Your task to perform on an android device: View the shopping cart on bestbuy. Image 0: 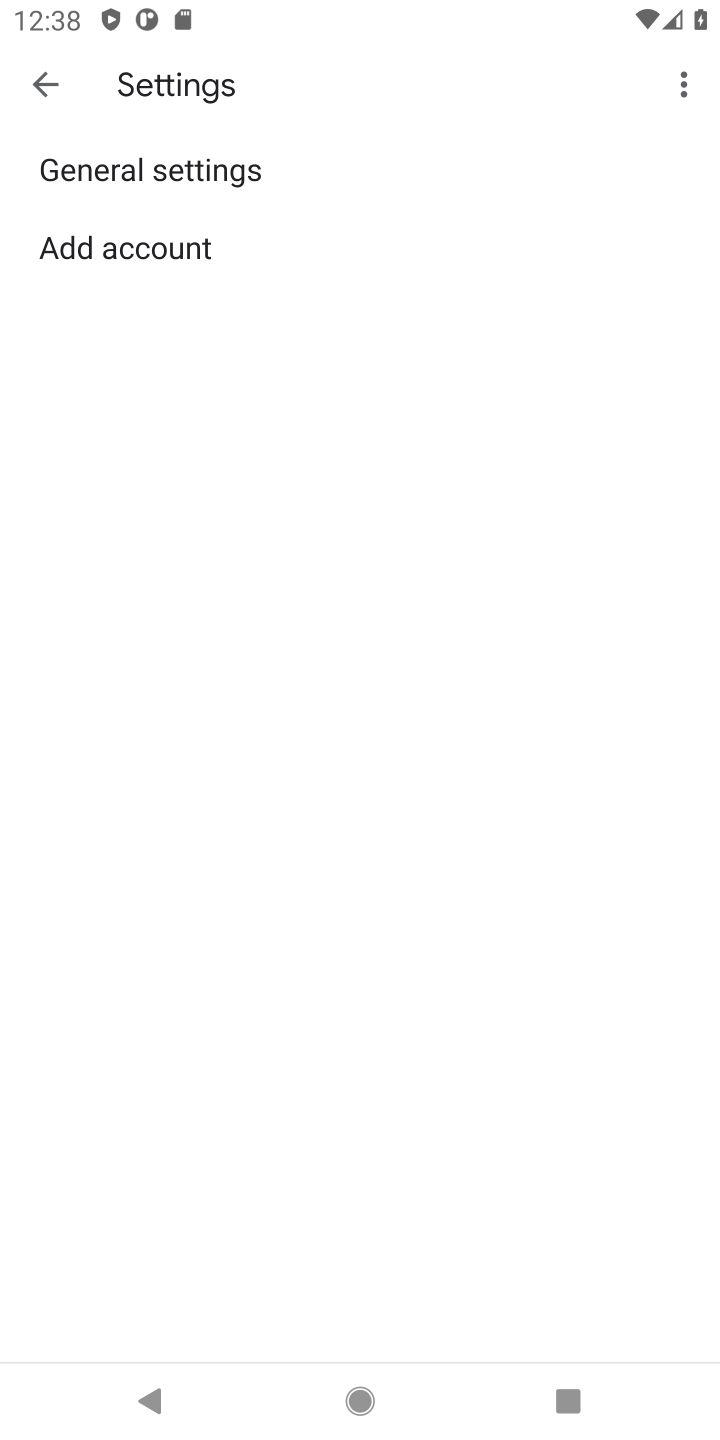
Step 0: press home button
Your task to perform on an android device: View the shopping cart on bestbuy. Image 1: 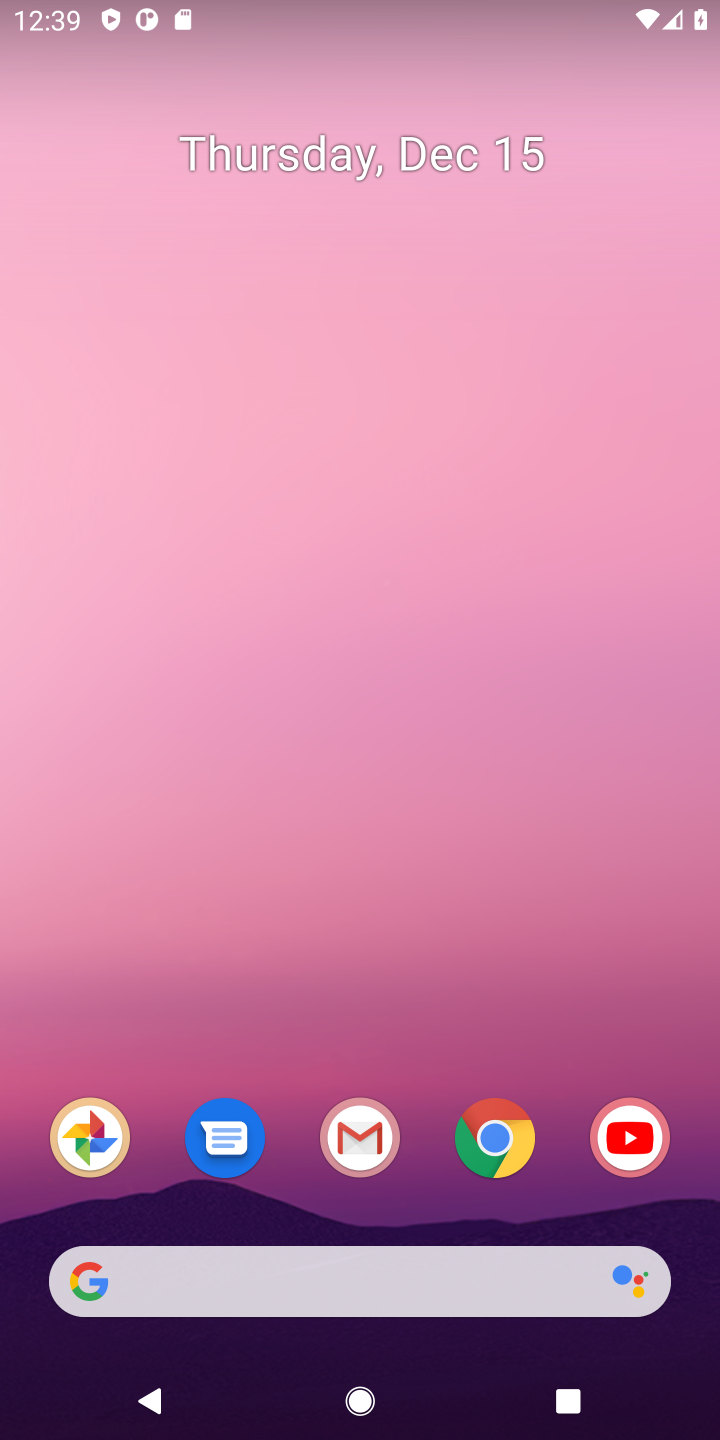
Step 1: click (490, 1166)
Your task to perform on an android device: View the shopping cart on bestbuy. Image 2: 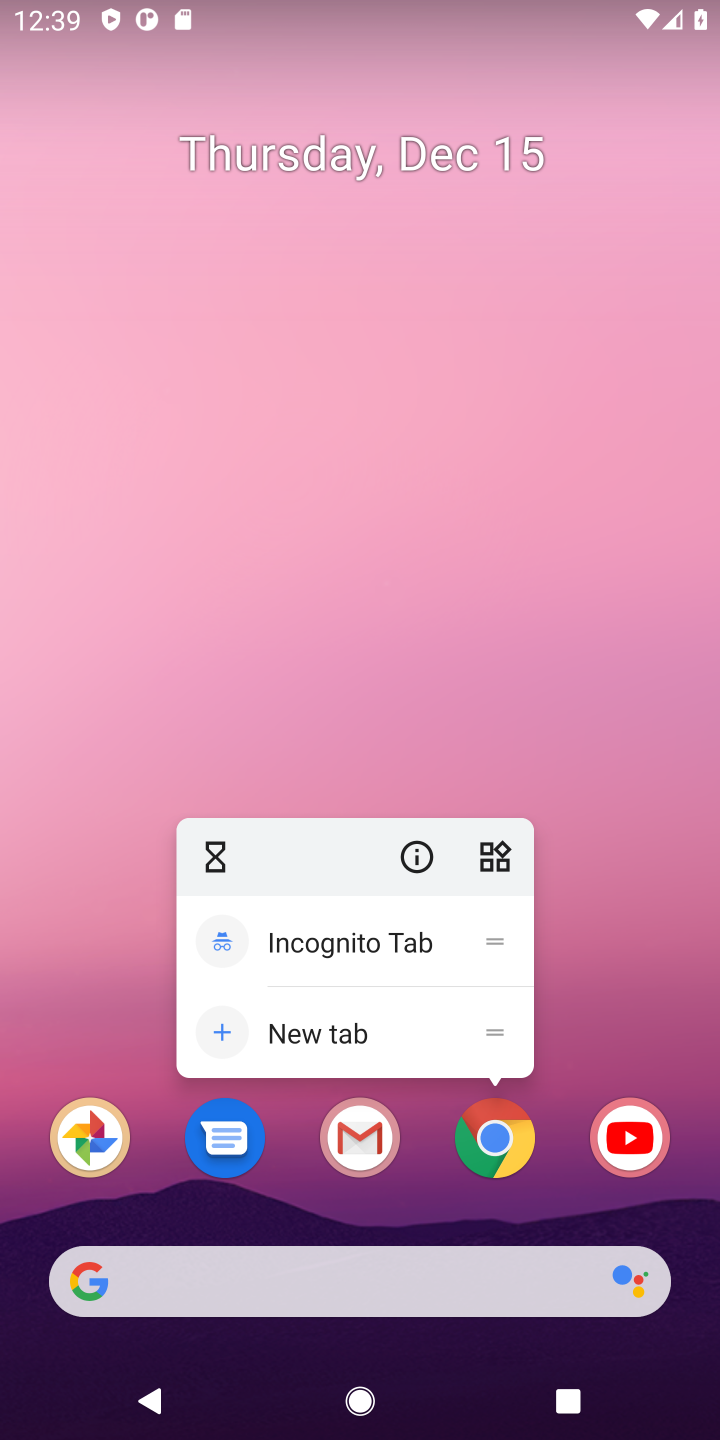
Step 2: click (487, 1159)
Your task to perform on an android device: View the shopping cart on bestbuy. Image 3: 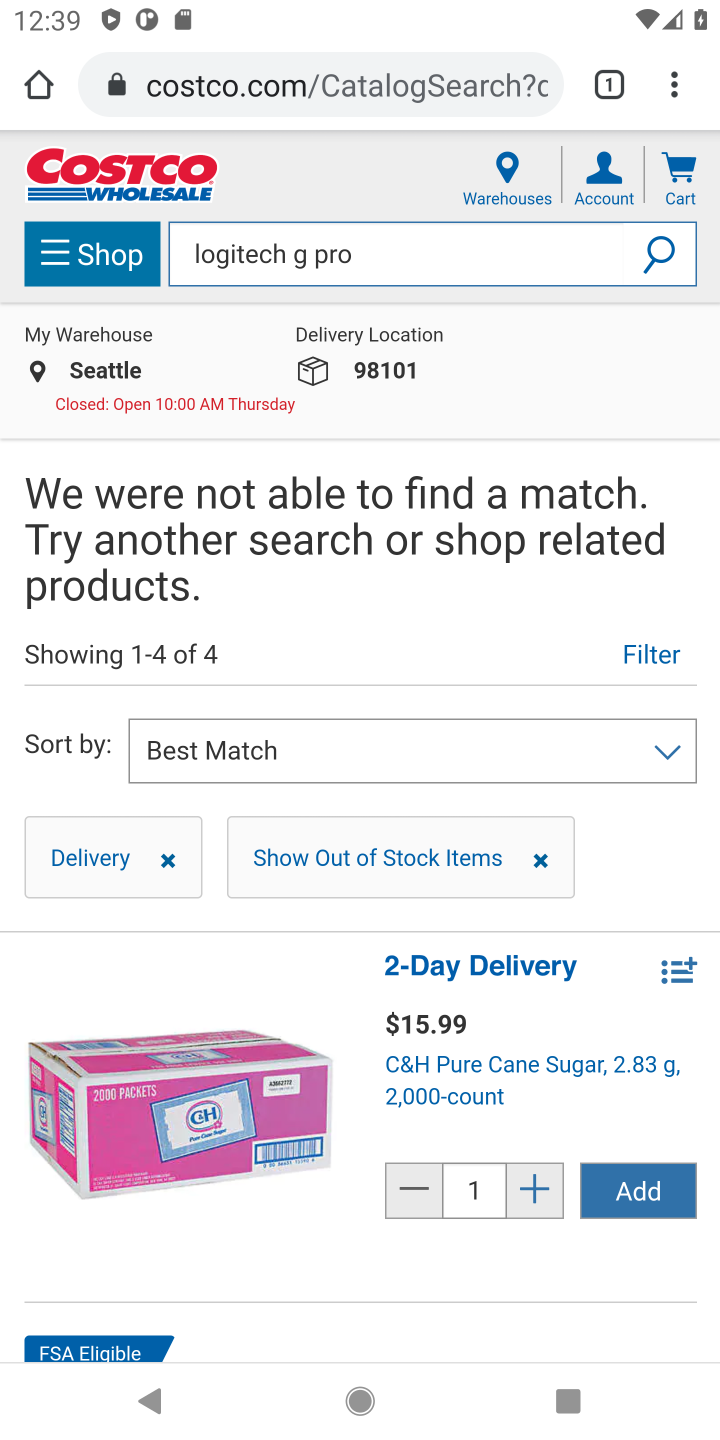
Step 3: click (265, 70)
Your task to perform on an android device: View the shopping cart on bestbuy. Image 4: 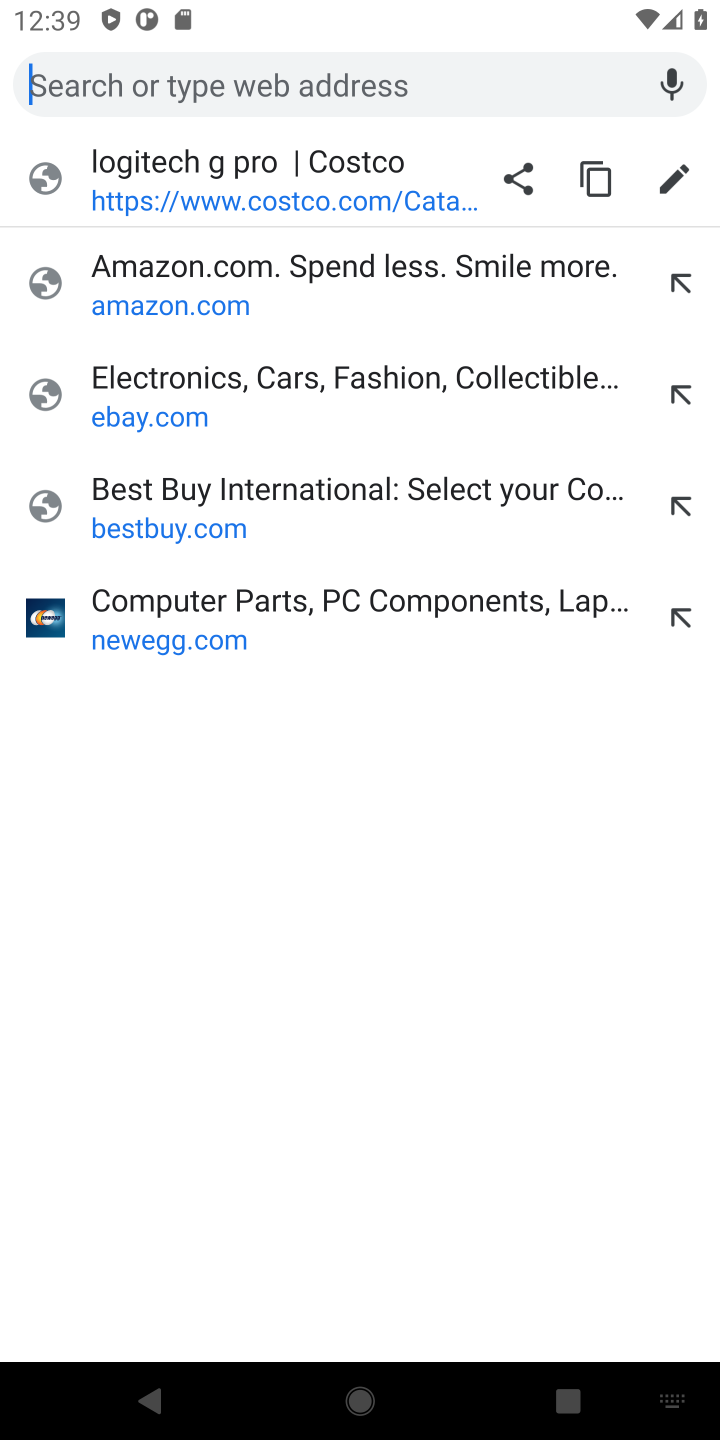
Step 4: type "bestbuy"
Your task to perform on an android device: View the shopping cart on bestbuy. Image 5: 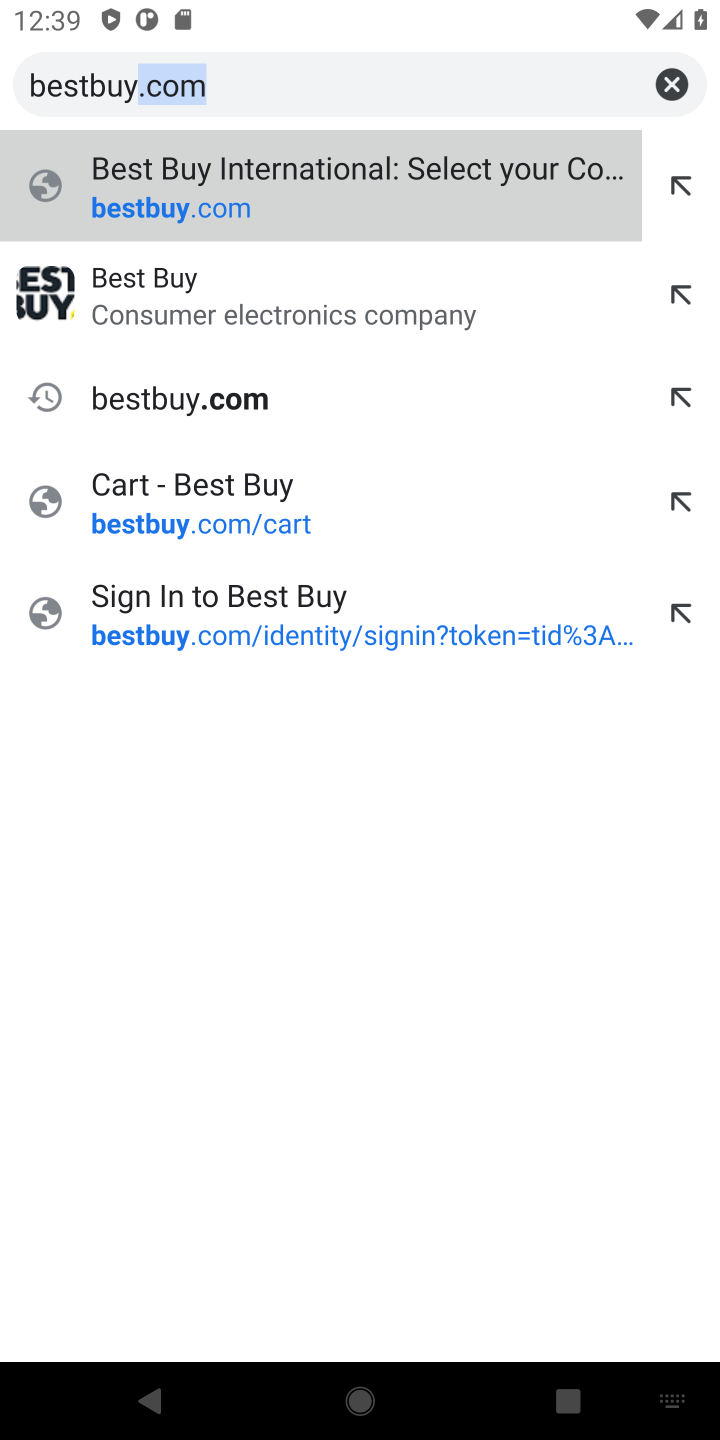
Step 5: click (405, 204)
Your task to perform on an android device: View the shopping cart on bestbuy. Image 6: 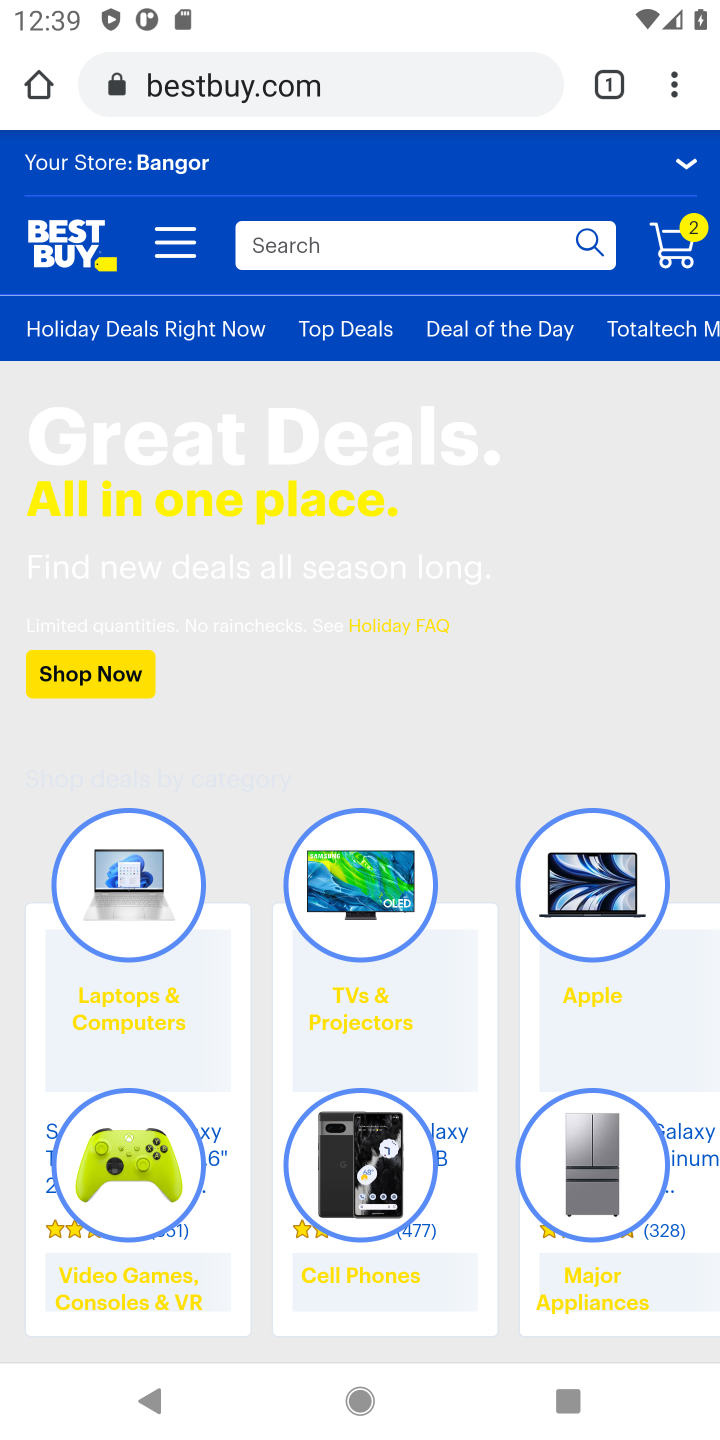
Step 6: click (677, 241)
Your task to perform on an android device: View the shopping cart on bestbuy. Image 7: 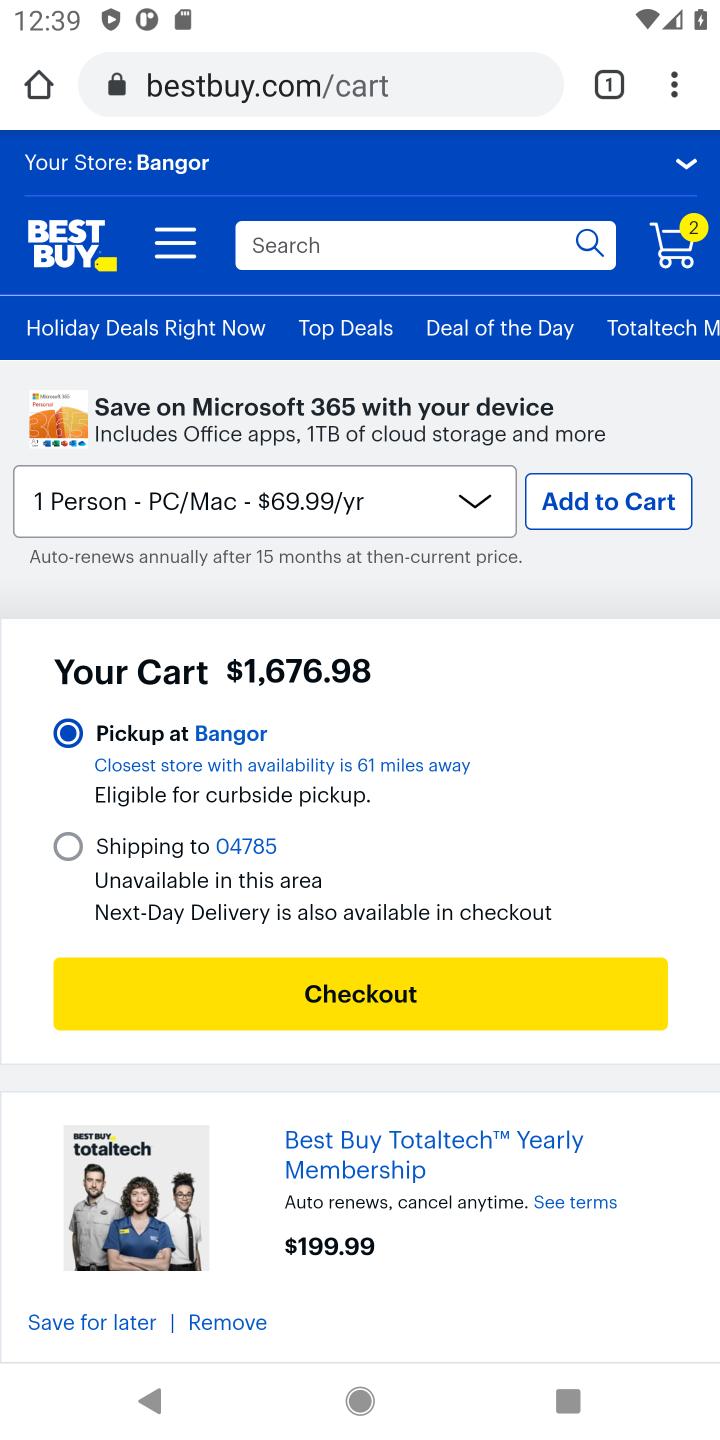
Step 7: task complete